Your task to perform on an android device: set the timer Image 0: 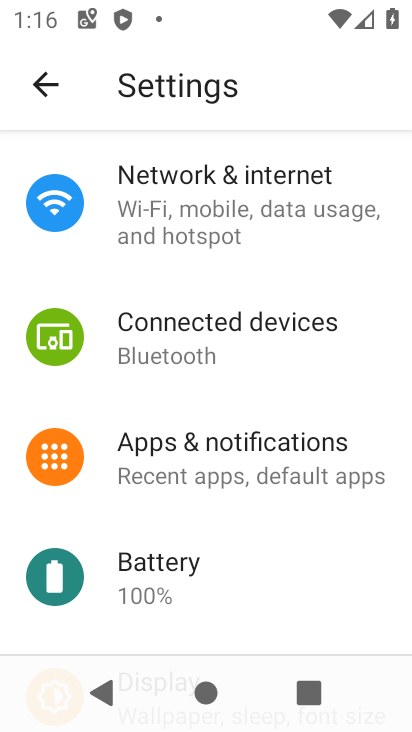
Step 0: press home button
Your task to perform on an android device: set the timer Image 1: 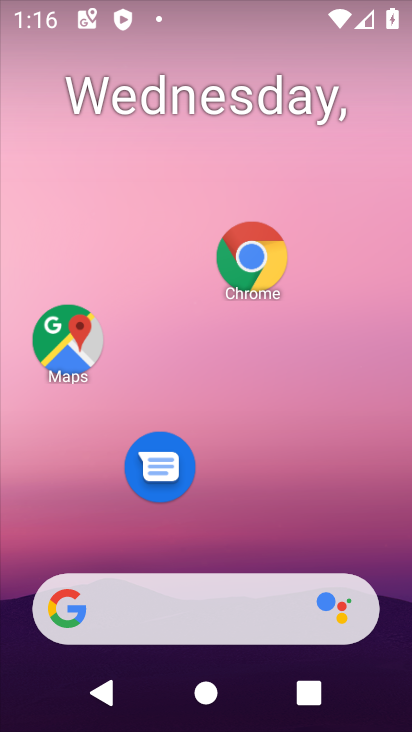
Step 1: drag from (232, 509) to (237, 237)
Your task to perform on an android device: set the timer Image 2: 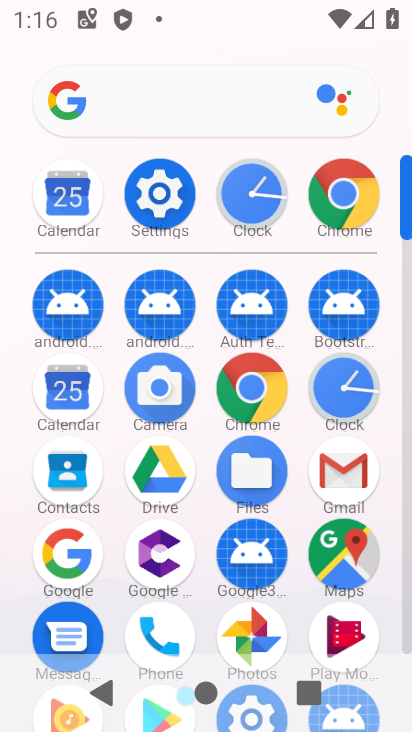
Step 2: click (333, 403)
Your task to perform on an android device: set the timer Image 3: 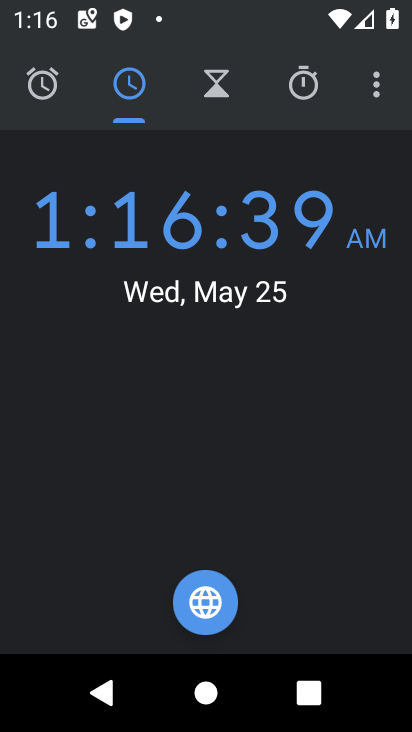
Step 3: click (384, 85)
Your task to perform on an android device: set the timer Image 4: 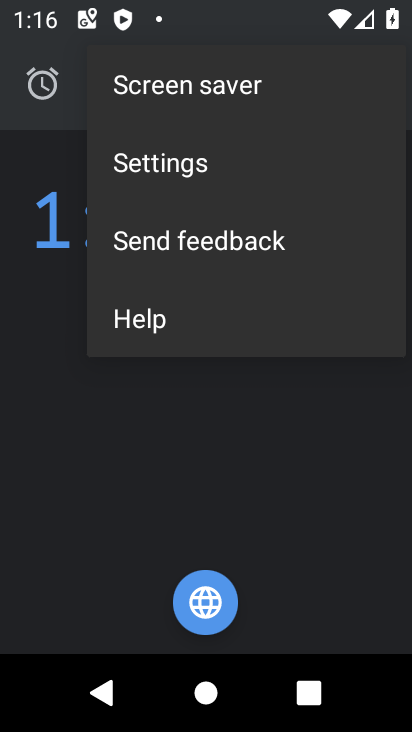
Step 4: click (19, 272)
Your task to perform on an android device: set the timer Image 5: 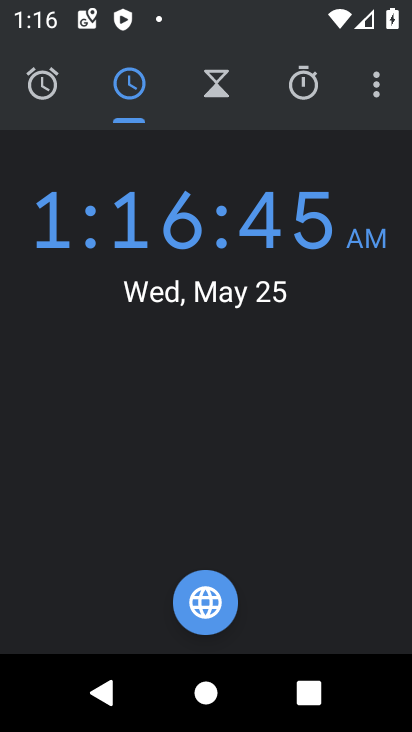
Step 5: click (230, 90)
Your task to perform on an android device: set the timer Image 6: 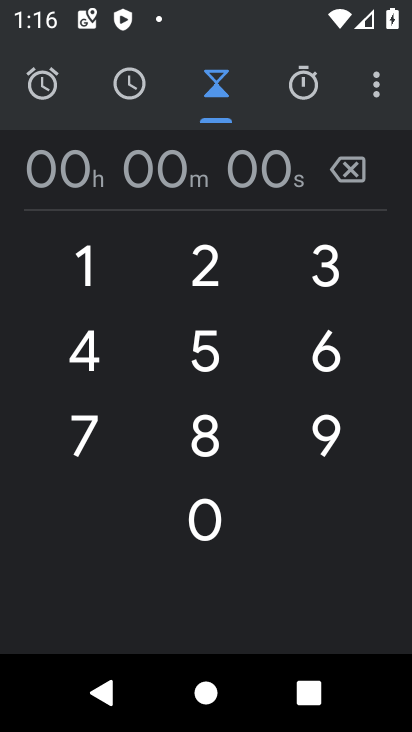
Step 6: click (205, 435)
Your task to perform on an android device: set the timer Image 7: 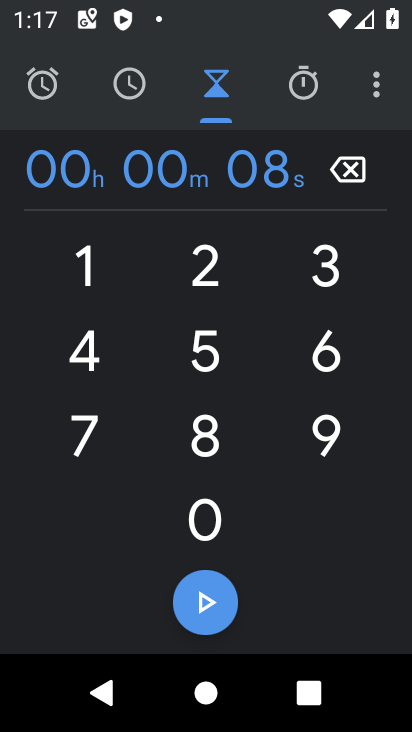
Step 7: click (209, 592)
Your task to perform on an android device: set the timer Image 8: 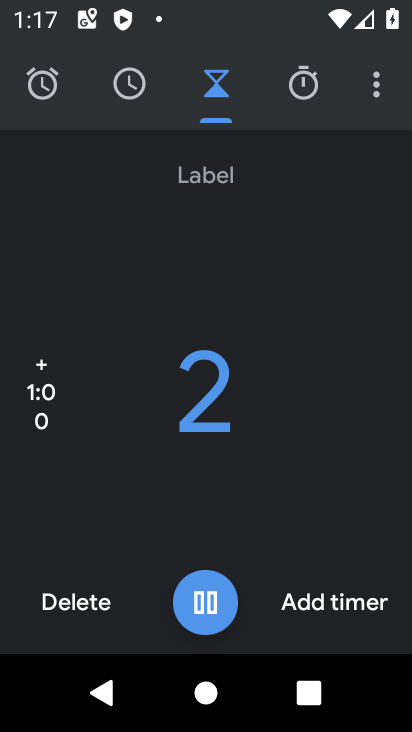
Step 8: task complete